Your task to perform on an android device: show emergency info Image 0: 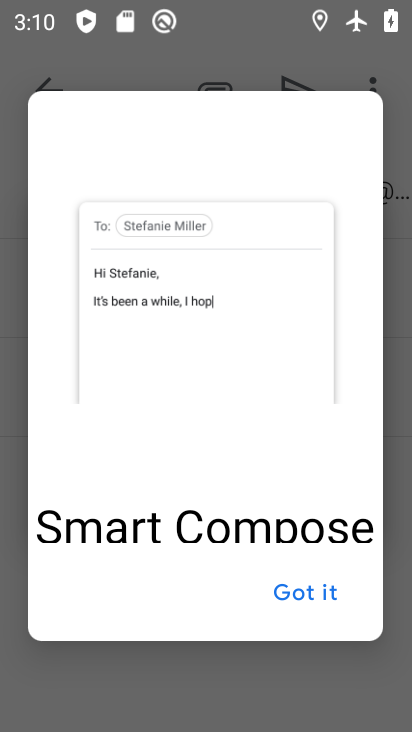
Step 0: press home button
Your task to perform on an android device: show emergency info Image 1: 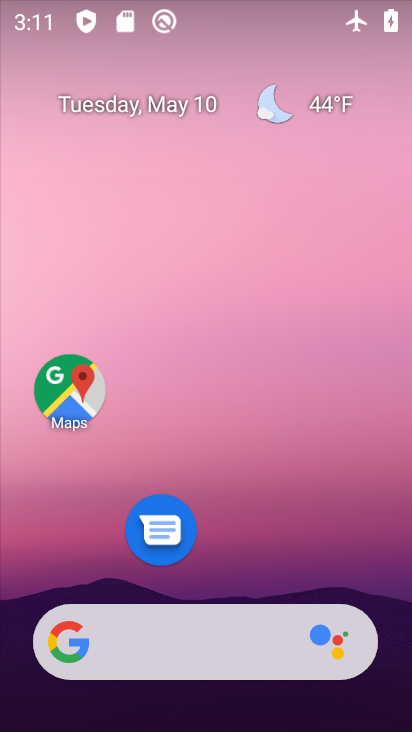
Step 1: drag from (262, 444) to (251, 7)
Your task to perform on an android device: show emergency info Image 2: 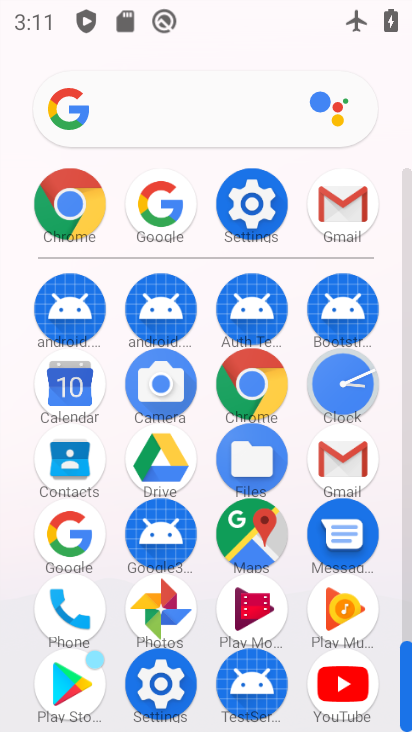
Step 2: click (249, 205)
Your task to perform on an android device: show emergency info Image 3: 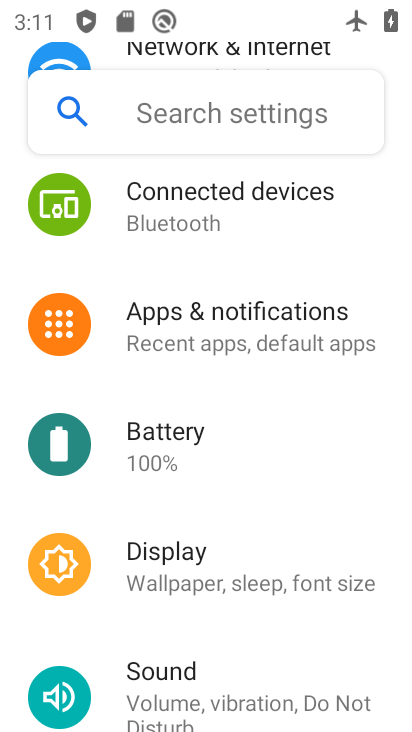
Step 3: drag from (218, 288) to (272, 120)
Your task to perform on an android device: show emergency info Image 4: 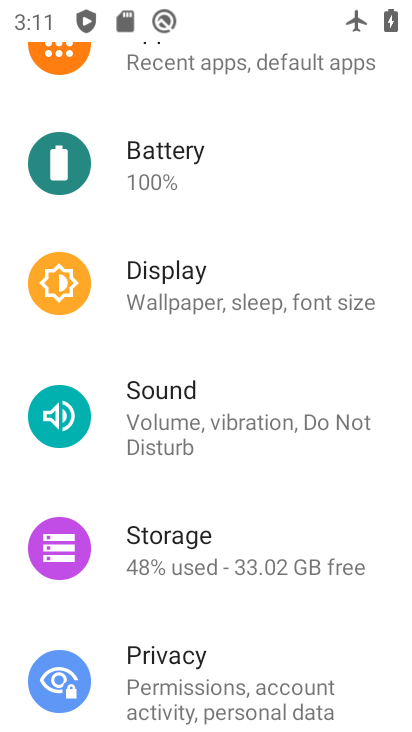
Step 4: drag from (206, 610) to (210, 268)
Your task to perform on an android device: show emergency info Image 5: 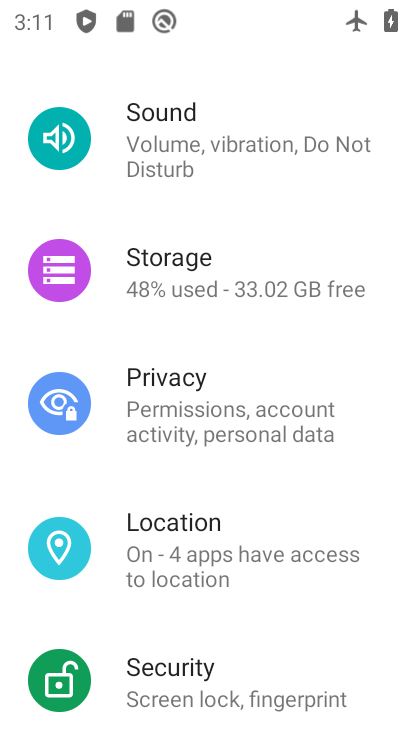
Step 5: drag from (253, 587) to (255, 0)
Your task to perform on an android device: show emergency info Image 6: 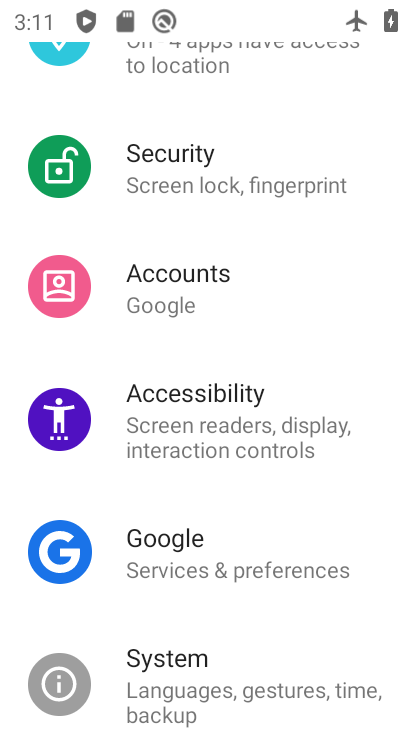
Step 6: drag from (232, 680) to (222, 167)
Your task to perform on an android device: show emergency info Image 7: 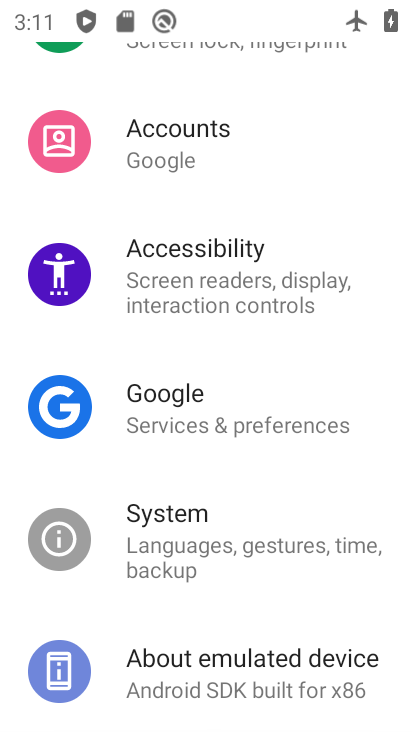
Step 7: click (191, 655)
Your task to perform on an android device: show emergency info Image 8: 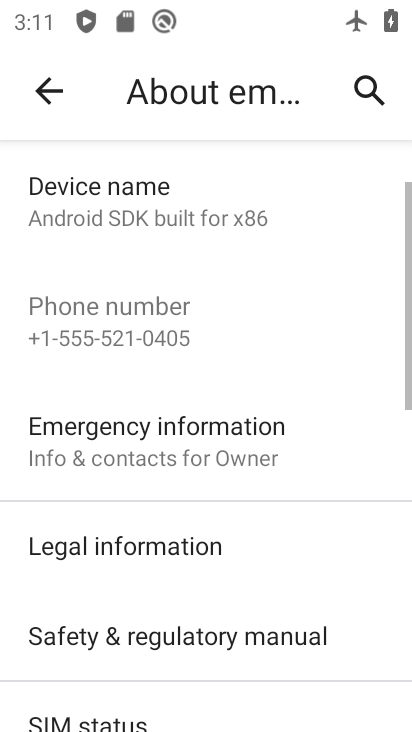
Step 8: drag from (189, 547) to (217, 24)
Your task to perform on an android device: show emergency info Image 9: 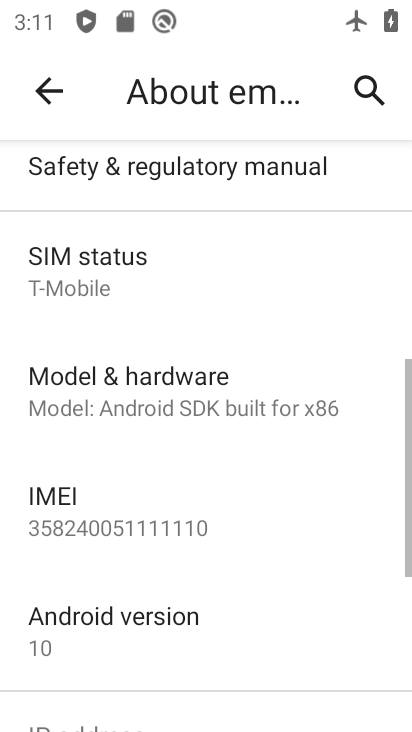
Step 9: drag from (310, 602) to (275, 94)
Your task to perform on an android device: show emergency info Image 10: 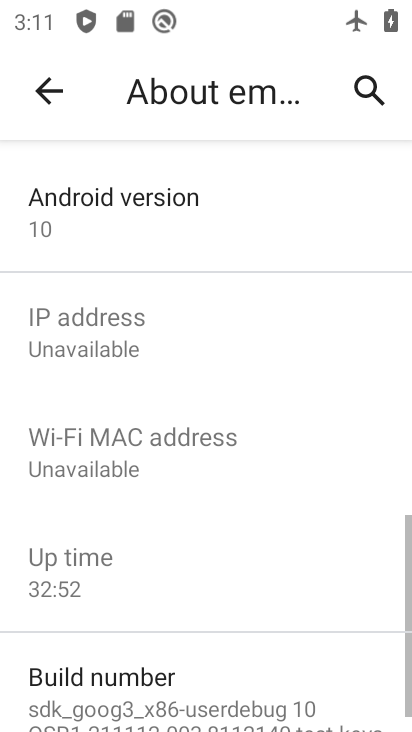
Step 10: drag from (227, 629) to (227, 80)
Your task to perform on an android device: show emergency info Image 11: 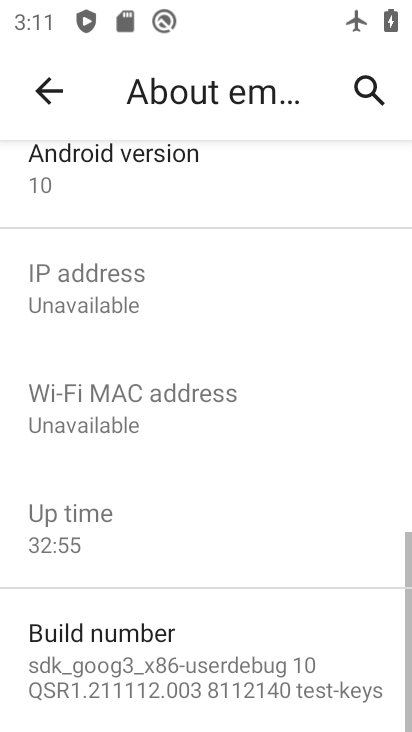
Step 11: drag from (201, 276) to (163, 724)
Your task to perform on an android device: show emergency info Image 12: 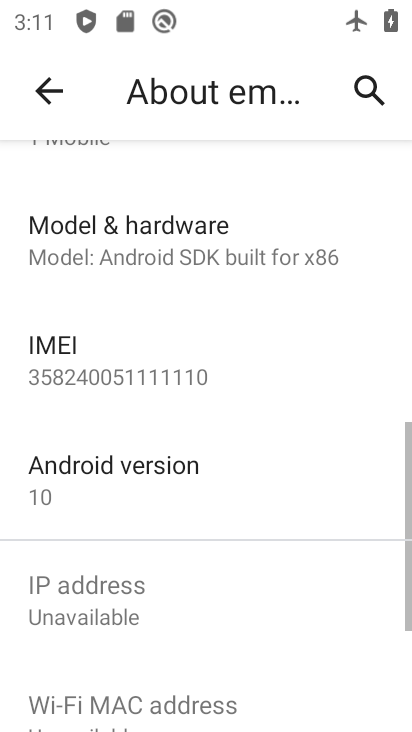
Step 12: drag from (172, 175) to (218, 666)
Your task to perform on an android device: show emergency info Image 13: 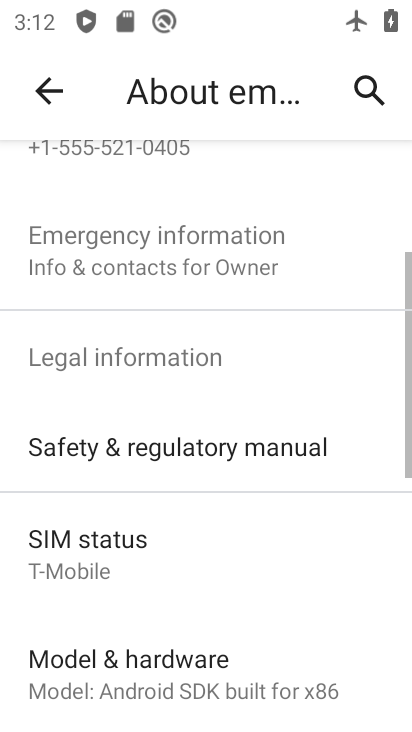
Step 13: click (214, 237)
Your task to perform on an android device: show emergency info Image 14: 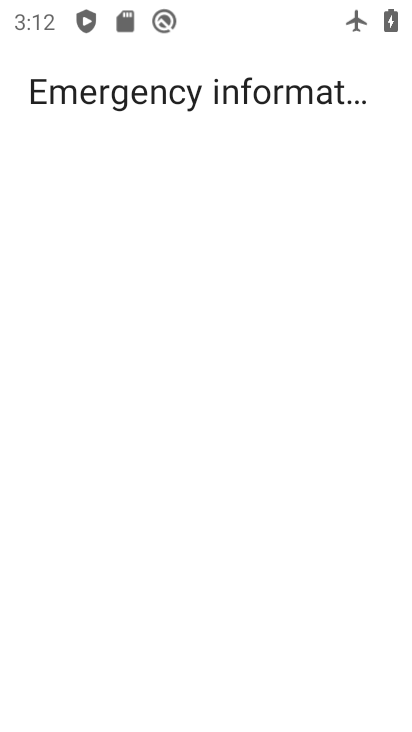
Step 14: task complete